Your task to perform on an android device: Turn on the flashlight Image 0: 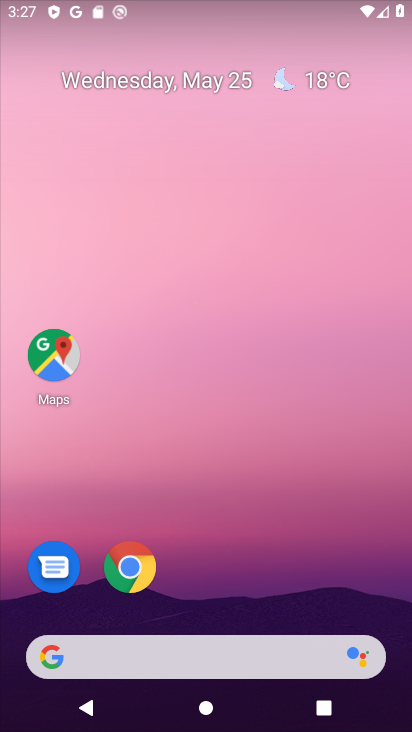
Step 0: drag from (230, 8) to (218, 319)
Your task to perform on an android device: Turn on the flashlight Image 1: 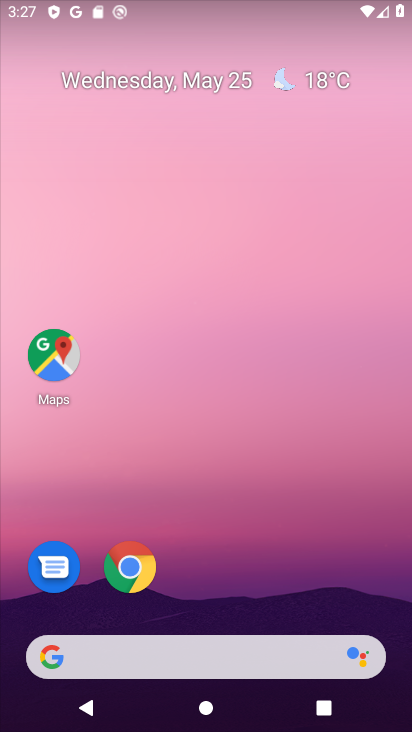
Step 1: drag from (258, 3) to (250, 337)
Your task to perform on an android device: Turn on the flashlight Image 2: 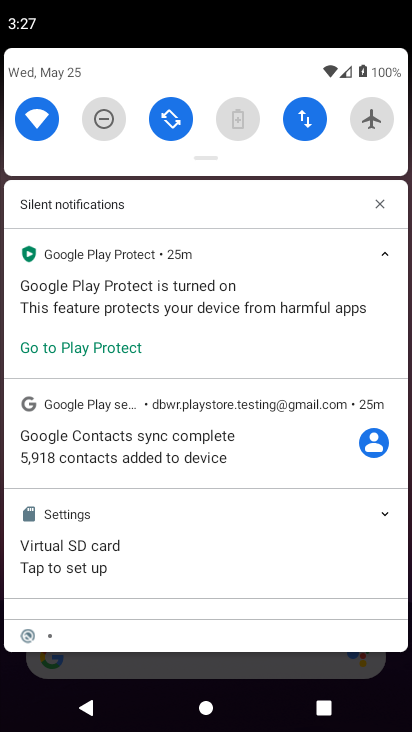
Step 2: drag from (278, 51) to (261, 286)
Your task to perform on an android device: Turn on the flashlight Image 3: 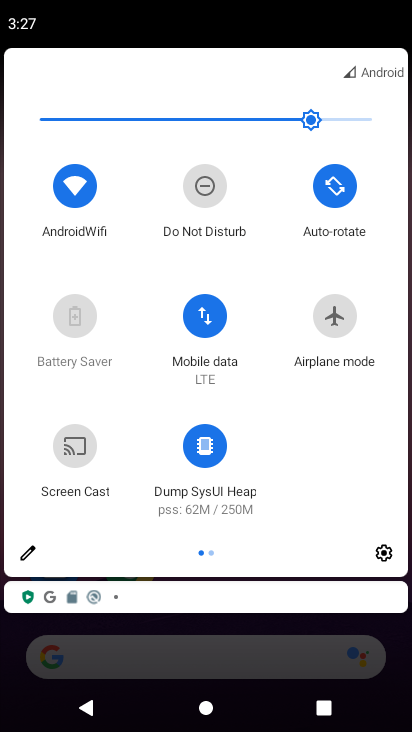
Step 3: click (32, 567)
Your task to perform on an android device: Turn on the flashlight Image 4: 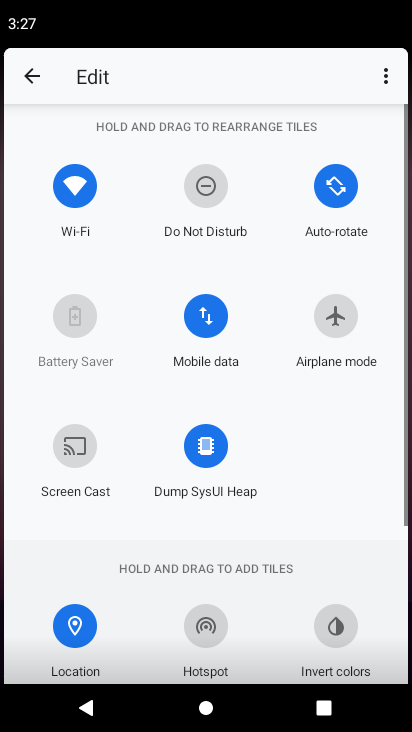
Step 4: task complete